Your task to perform on an android device: Open CNN.com Image 0: 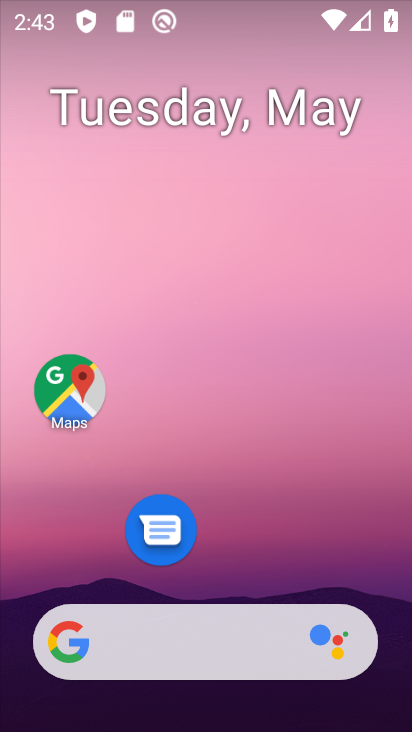
Step 0: drag from (258, 551) to (231, 131)
Your task to perform on an android device: Open CNN.com Image 1: 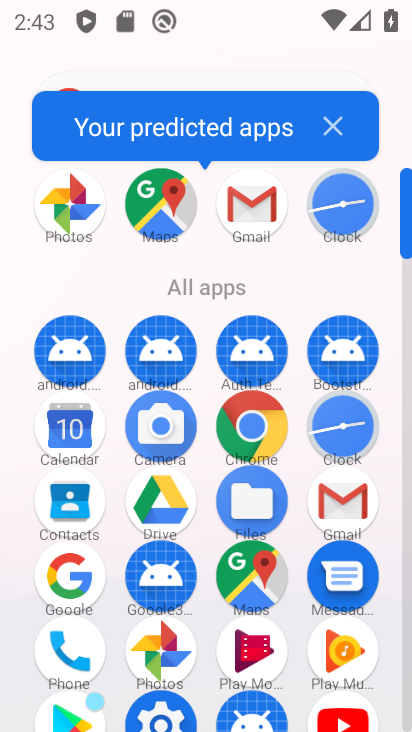
Step 1: click (74, 577)
Your task to perform on an android device: Open CNN.com Image 2: 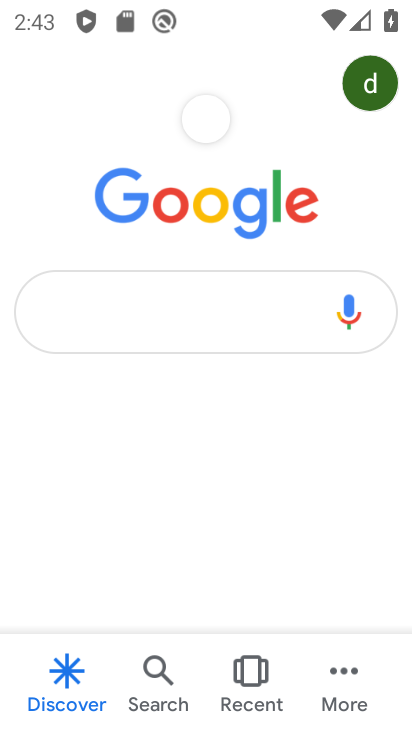
Step 2: click (191, 316)
Your task to perform on an android device: Open CNN.com Image 3: 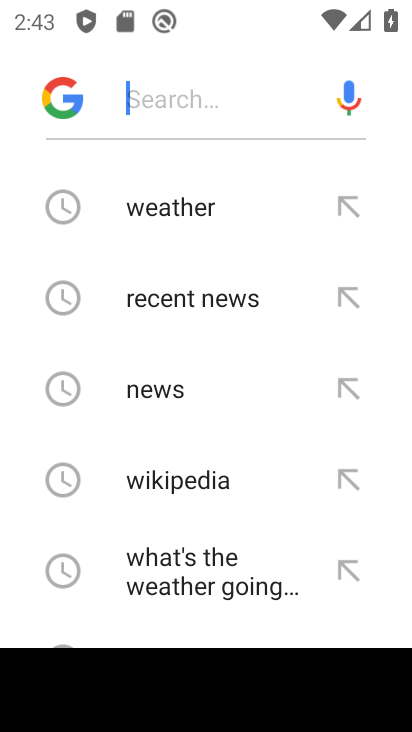
Step 3: drag from (183, 431) to (203, 199)
Your task to perform on an android device: Open CNN.com Image 4: 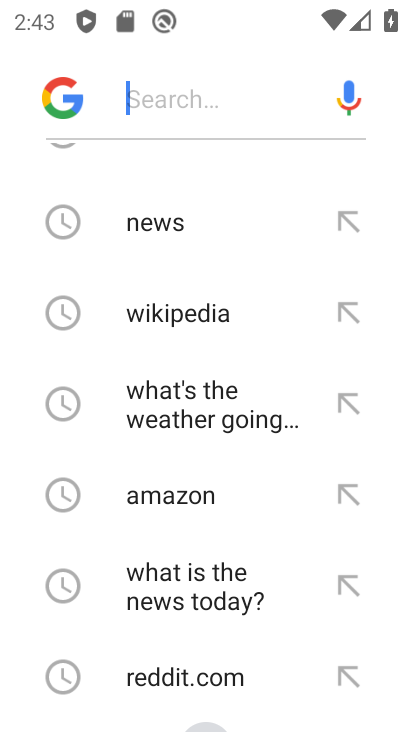
Step 4: drag from (233, 537) to (261, 478)
Your task to perform on an android device: Open CNN.com Image 5: 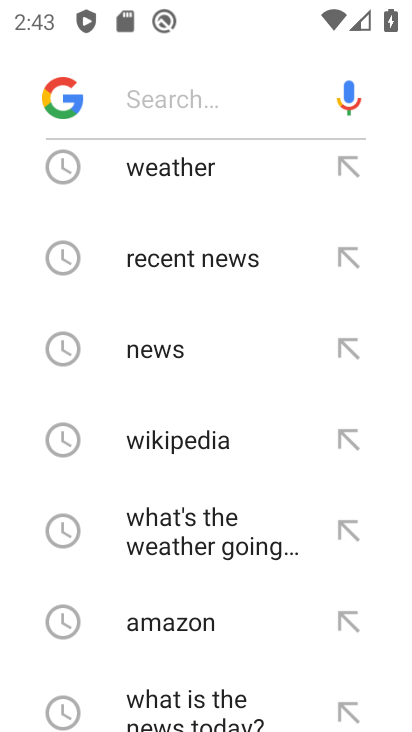
Step 5: type "cnn.com"
Your task to perform on an android device: Open CNN.com Image 6: 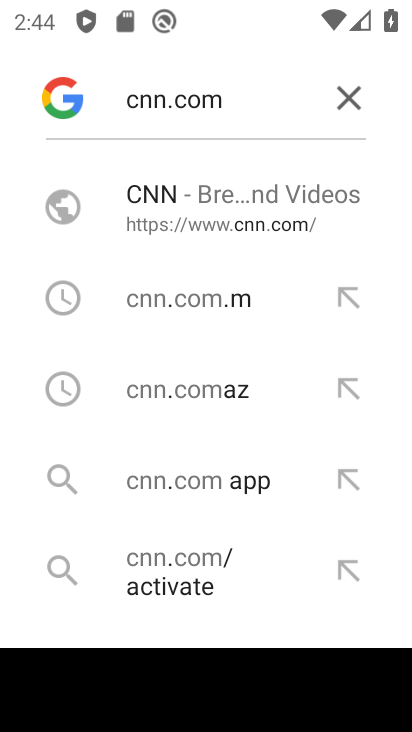
Step 6: click (237, 205)
Your task to perform on an android device: Open CNN.com Image 7: 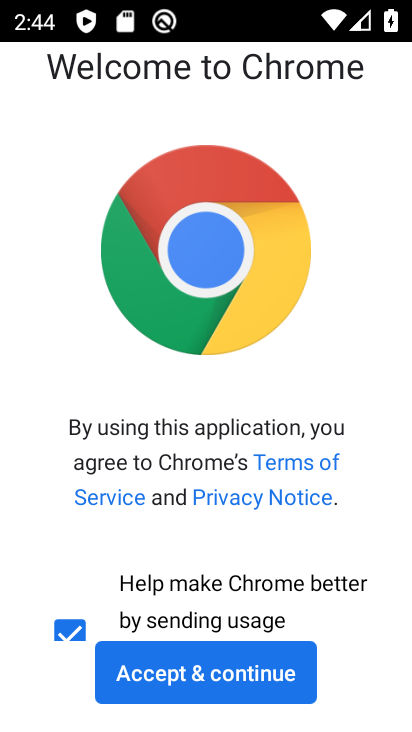
Step 7: click (190, 669)
Your task to perform on an android device: Open CNN.com Image 8: 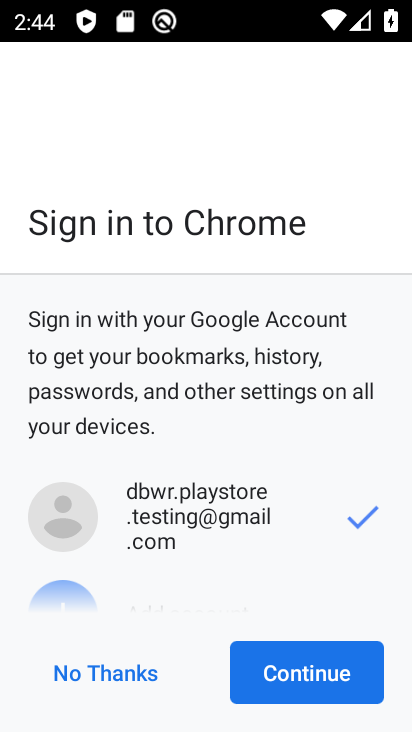
Step 8: click (310, 685)
Your task to perform on an android device: Open CNN.com Image 9: 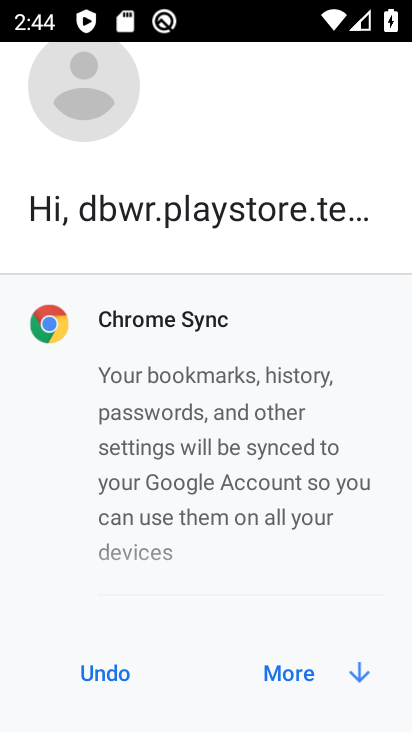
Step 9: click (310, 685)
Your task to perform on an android device: Open CNN.com Image 10: 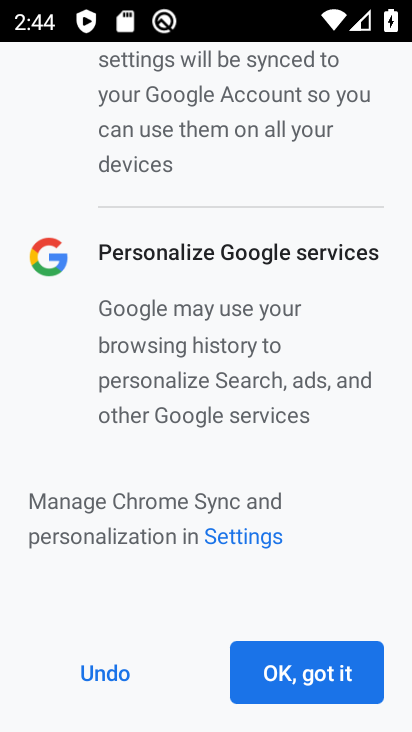
Step 10: click (311, 669)
Your task to perform on an android device: Open CNN.com Image 11: 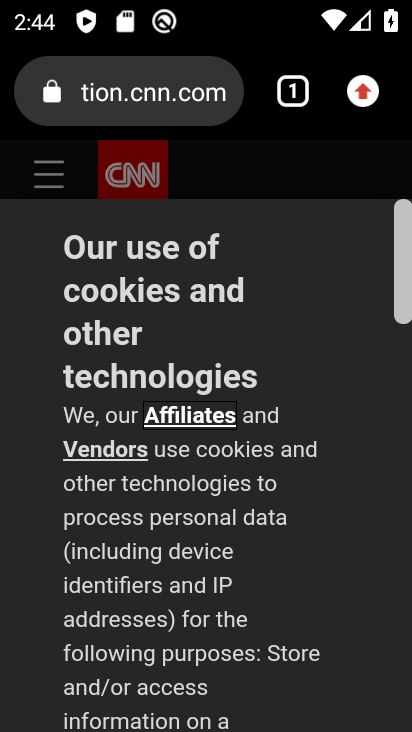
Step 11: task complete